Your task to perform on an android device: turn on airplane mode Image 0: 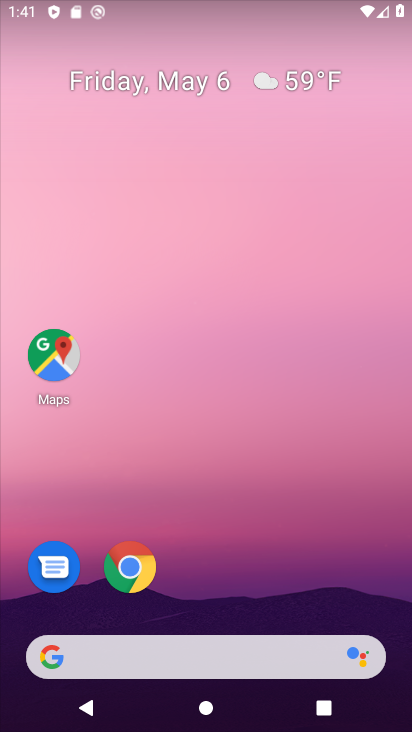
Step 0: drag from (211, 502) to (225, 24)
Your task to perform on an android device: turn on airplane mode Image 1: 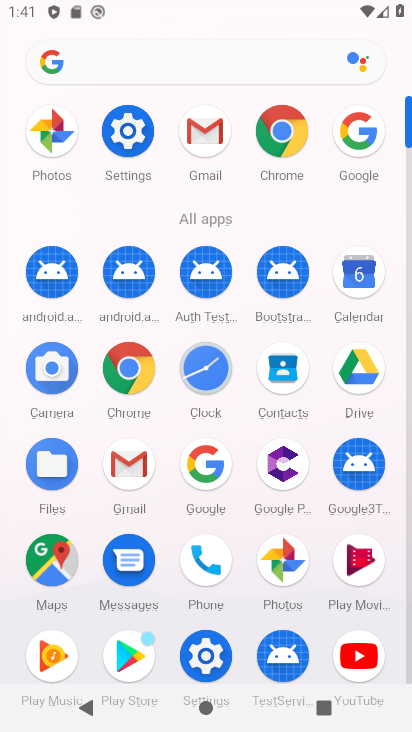
Step 1: click (129, 129)
Your task to perform on an android device: turn on airplane mode Image 2: 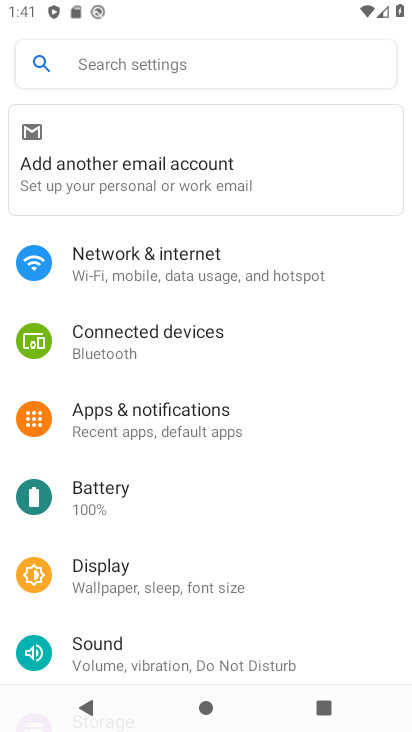
Step 2: click (146, 262)
Your task to perform on an android device: turn on airplane mode Image 3: 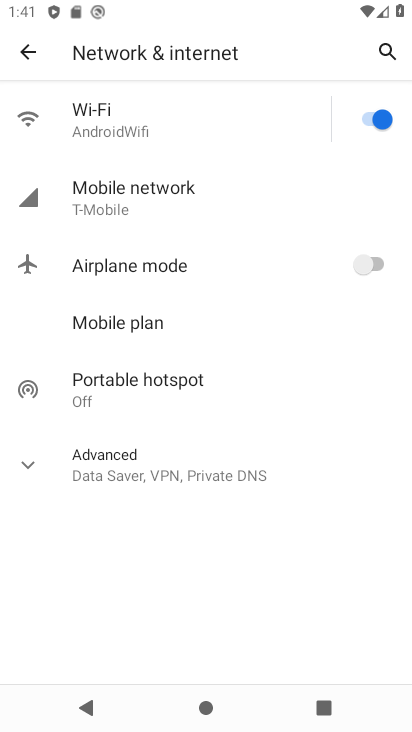
Step 3: click (368, 258)
Your task to perform on an android device: turn on airplane mode Image 4: 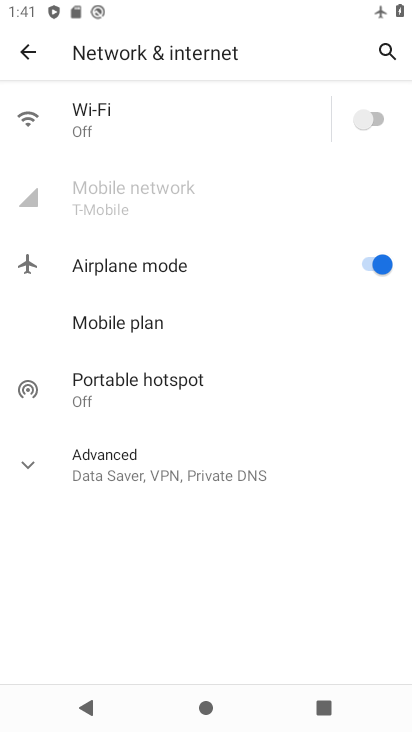
Step 4: task complete